Your task to perform on an android device: Open display settings Image 0: 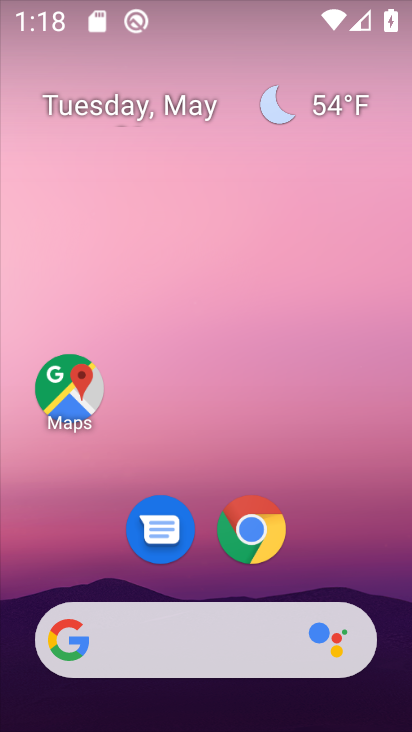
Step 0: drag from (337, 551) to (296, 136)
Your task to perform on an android device: Open display settings Image 1: 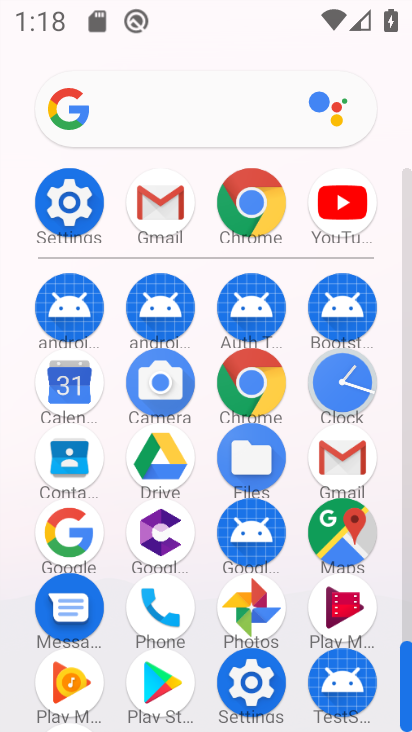
Step 1: click (72, 198)
Your task to perform on an android device: Open display settings Image 2: 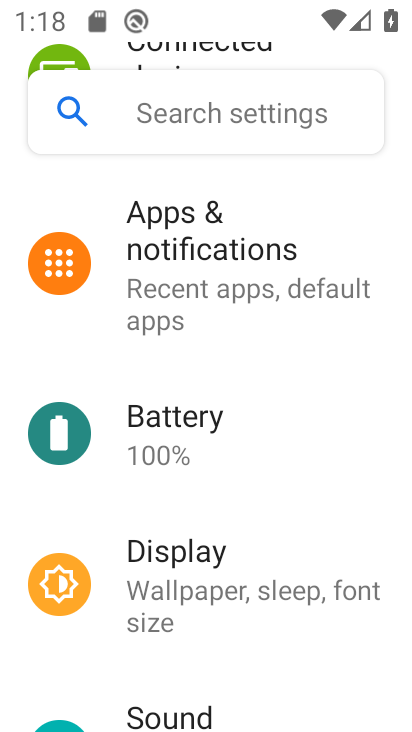
Step 2: click (211, 566)
Your task to perform on an android device: Open display settings Image 3: 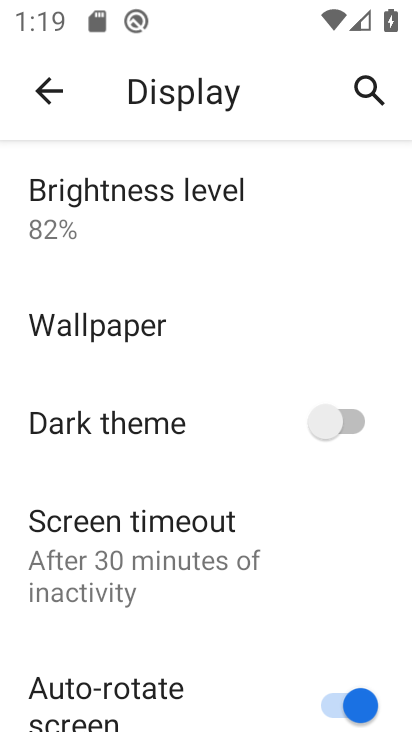
Step 3: task complete